Your task to perform on an android device: Open Google Image 0: 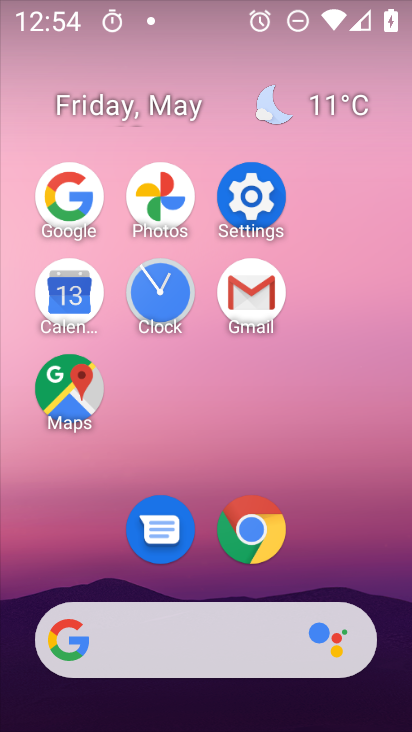
Step 0: click (69, 219)
Your task to perform on an android device: Open Google Image 1: 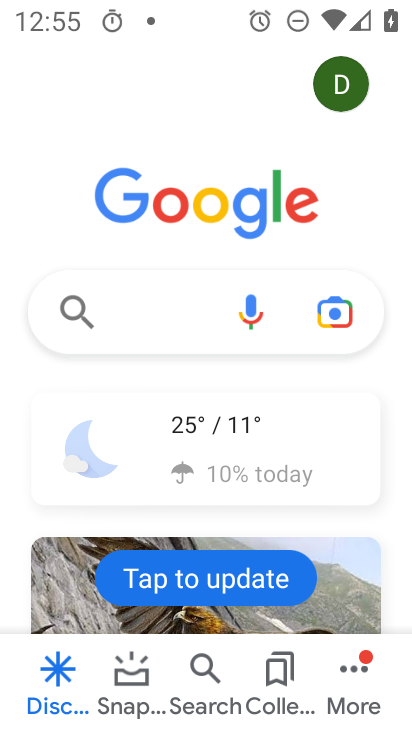
Step 1: task complete